Your task to perform on an android device: Search for pizza restaurants on Maps Image 0: 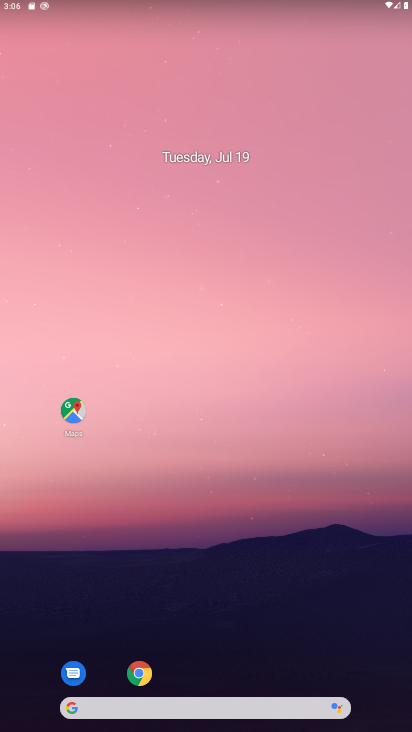
Step 0: click (76, 410)
Your task to perform on an android device: Search for pizza restaurants on Maps Image 1: 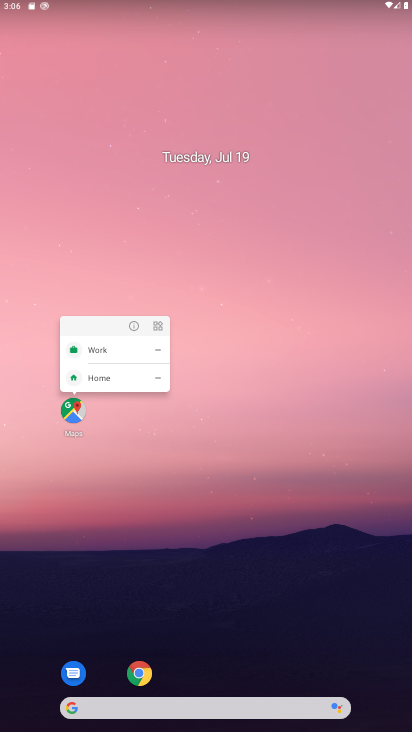
Step 1: click (76, 410)
Your task to perform on an android device: Search for pizza restaurants on Maps Image 2: 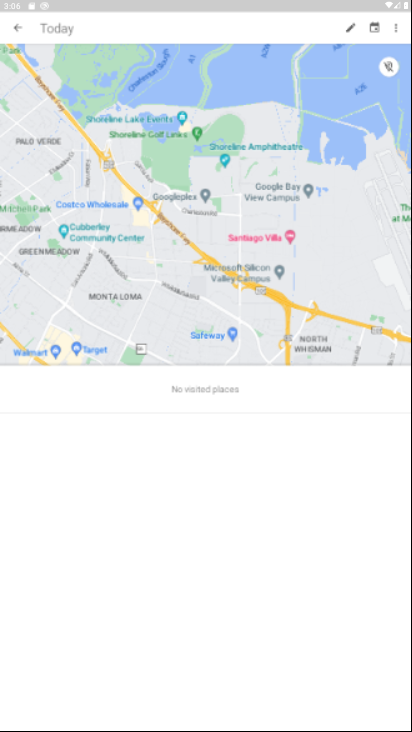
Step 2: click (19, 26)
Your task to perform on an android device: Search for pizza restaurants on Maps Image 3: 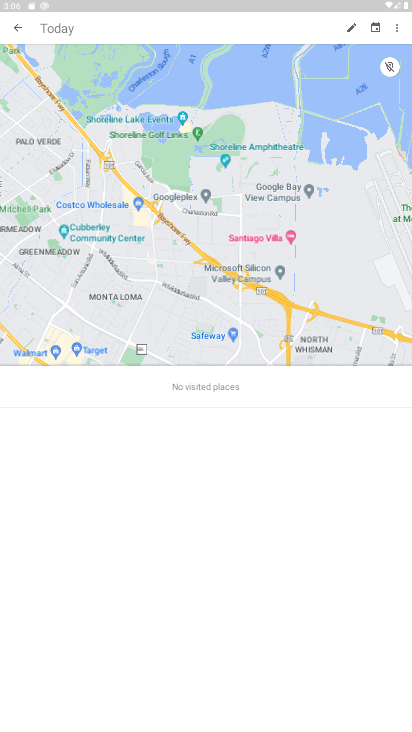
Step 3: click (11, 28)
Your task to perform on an android device: Search for pizza restaurants on Maps Image 4: 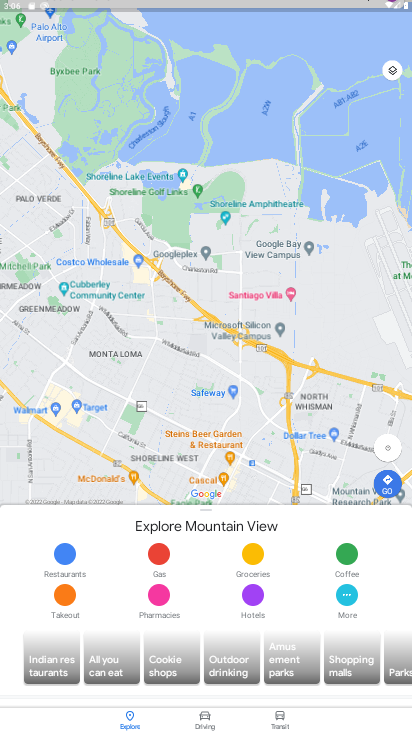
Step 4: click (17, 33)
Your task to perform on an android device: Search for pizza restaurants on Maps Image 5: 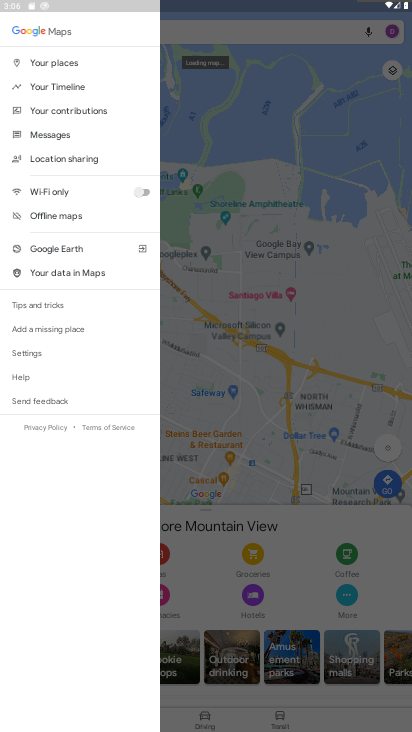
Step 5: click (191, 31)
Your task to perform on an android device: Search for pizza restaurants on Maps Image 6: 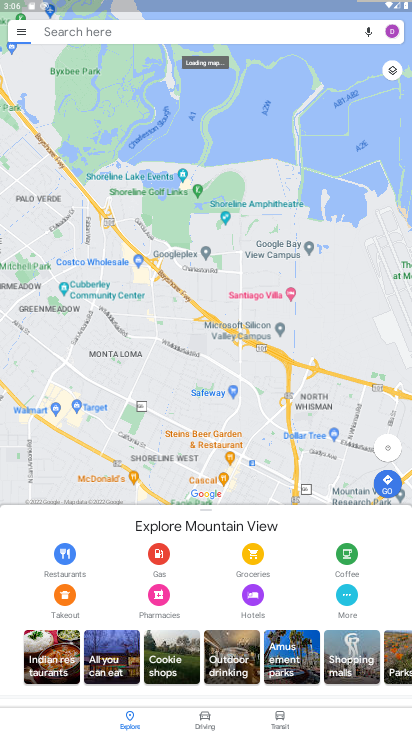
Step 6: click (180, 31)
Your task to perform on an android device: Search for pizza restaurants on Maps Image 7: 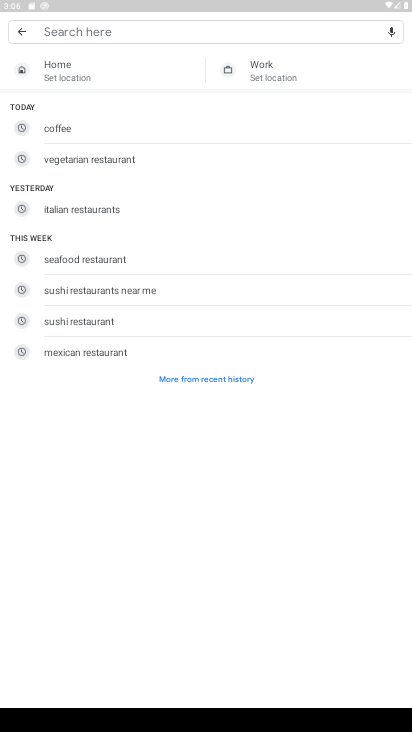
Step 7: type "pizza restaurants"
Your task to perform on an android device: Search for pizza restaurants on Maps Image 8: 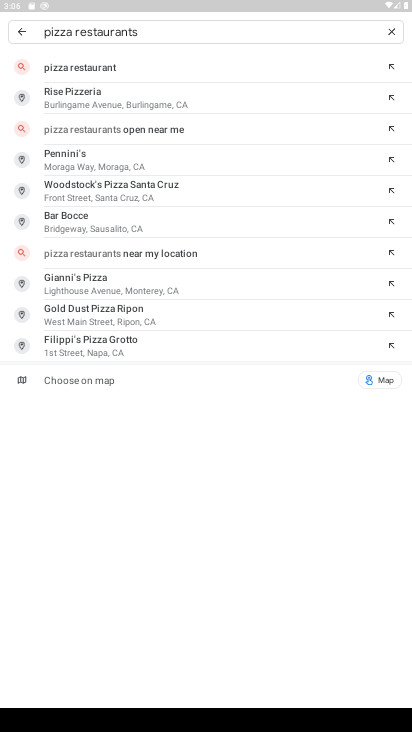
Step 8: click (68, 66)
Your task to perform on an android device: Search for pizza restaurants on Maps Image 9: 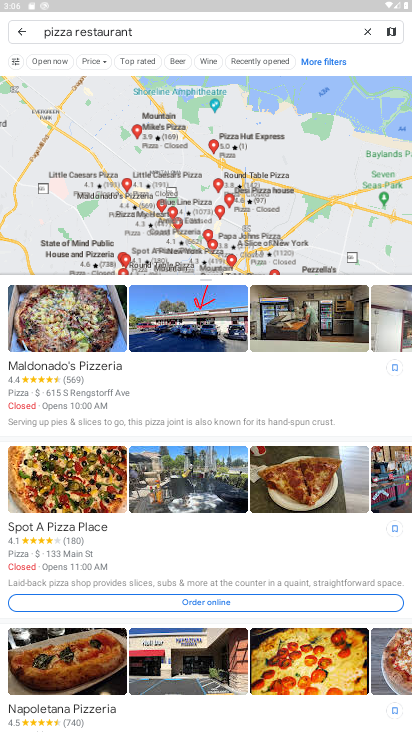
Step 9: task complete